Your task to perform on an android device: What's the weather? Image 0: 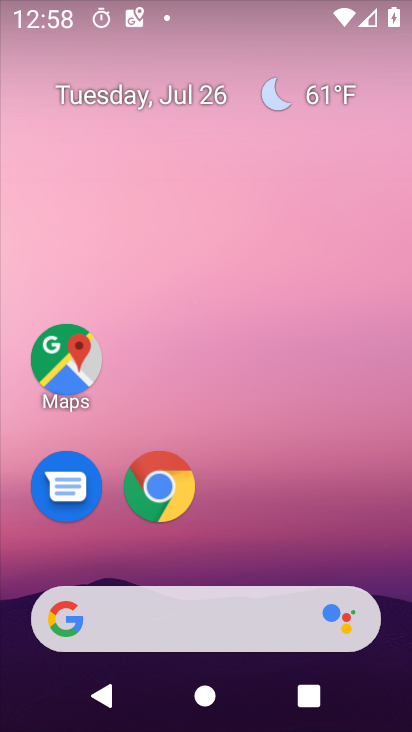
Step 0: click (218, 624)
Your task to perform on an android device: What's the weather? Image 1: 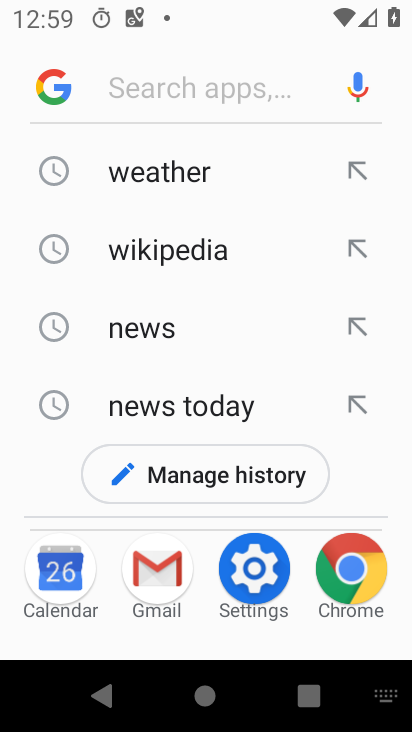
Step 1: click (215, 200)
Your task to perform on an android device: What's the weather? Image 2: 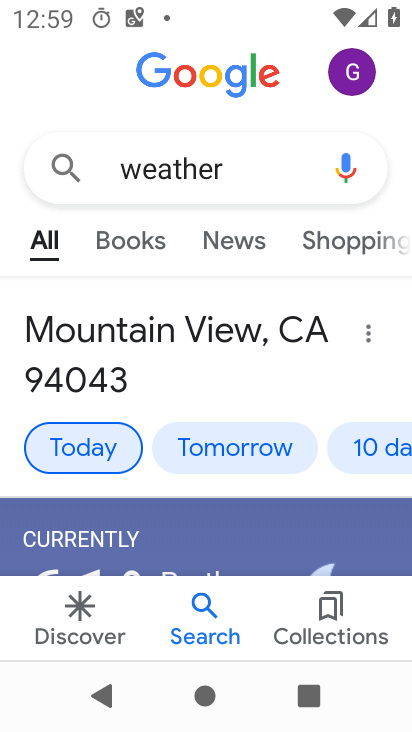
Step 2: task complete